Your task to perform on an android device: Open CNN.com Image 0: 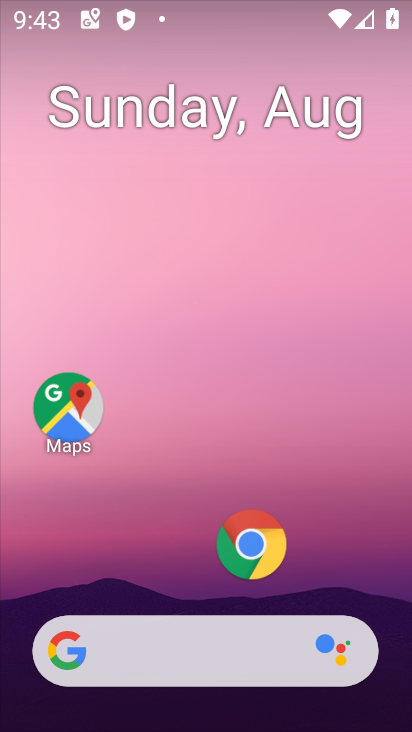
Step 0: click (243, 578)
Your task to perform on an android device: Open CNN.com Image 1: 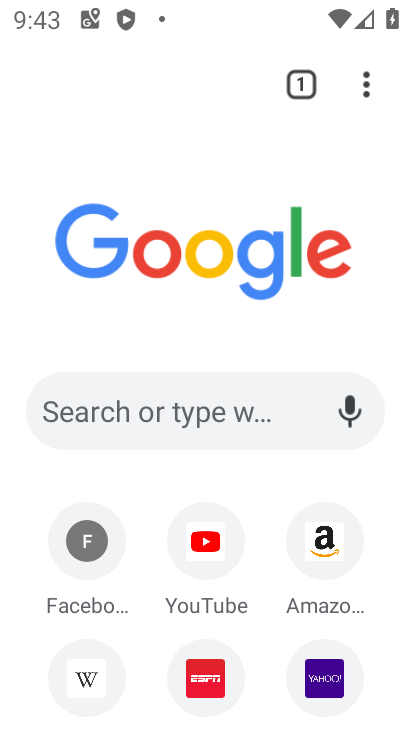
Step 1: click (194, 394)
Your task to perform on an android device: Open CNN.com Image 2: 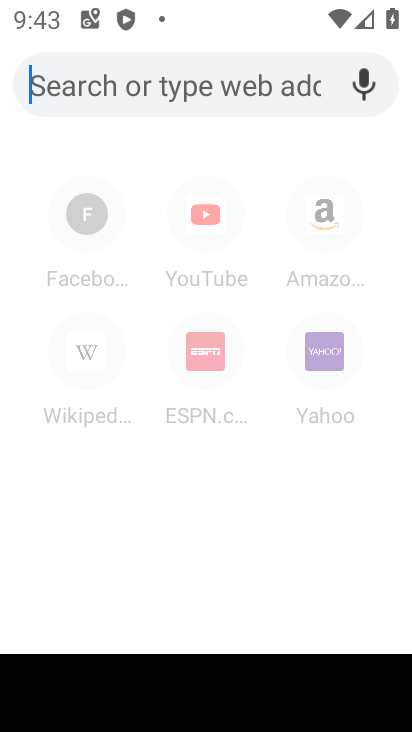
Step 2: type "CNN.com"
Your task to perform on an android device: Open CNN.com Image 3: 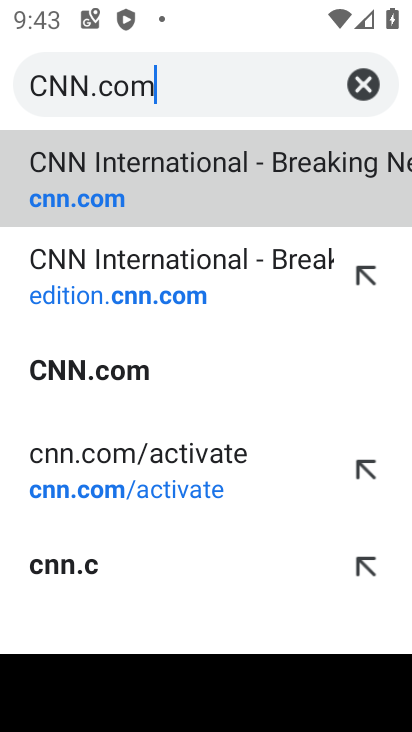
Step 3: type ""
Your task to perform on an android device: Open CNN.com Image 4: 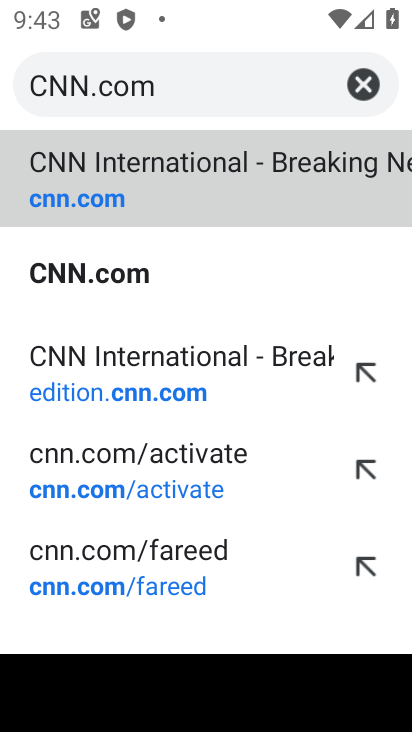
Step 4: click (120, 208)
Your task to perform on an android device: Open CNN.com Image 5: 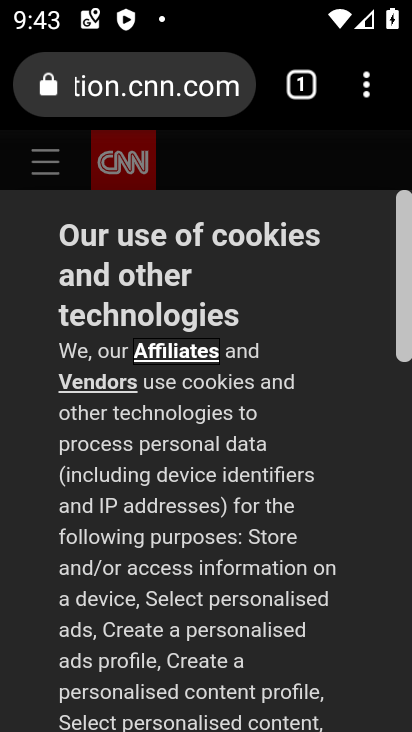
Step 5: task complete